Your task to perform on an android device: Search for pizza restaurants on Maps Image 0: 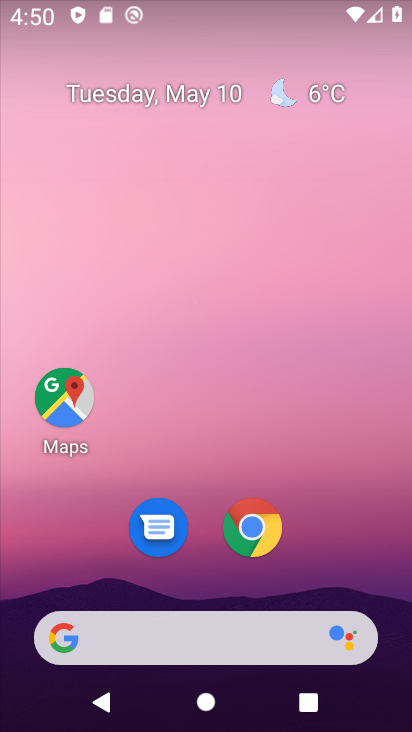
Step 0: drag from (350, 551) to (389, 33)
Your task to perform on an android device: Search for pizza restaurants on Maps Image 1: 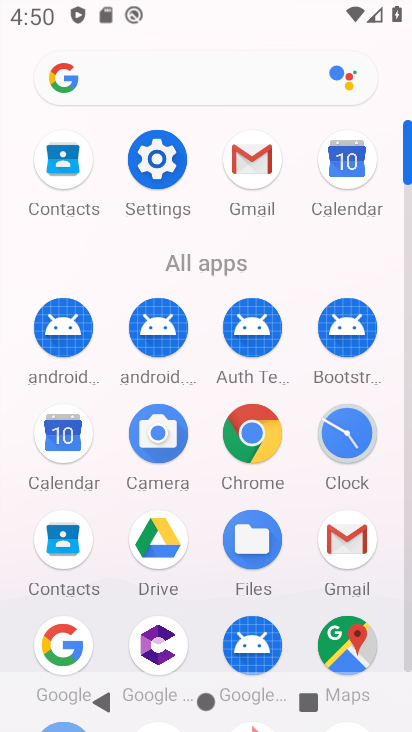
Step 1: click (345, 661)
Your task to perform on an android device: Search for pizza restaurants on Maps Image 2: 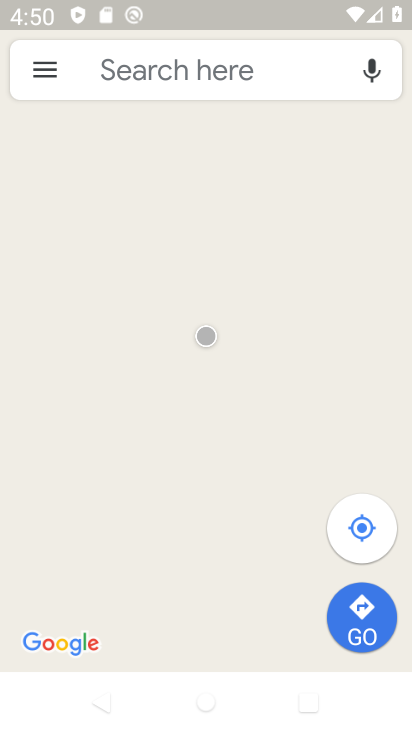
Step 2: click (167, 71)
Your task to perform on an android device: Search for pizza restaurants on Maps Image 3: 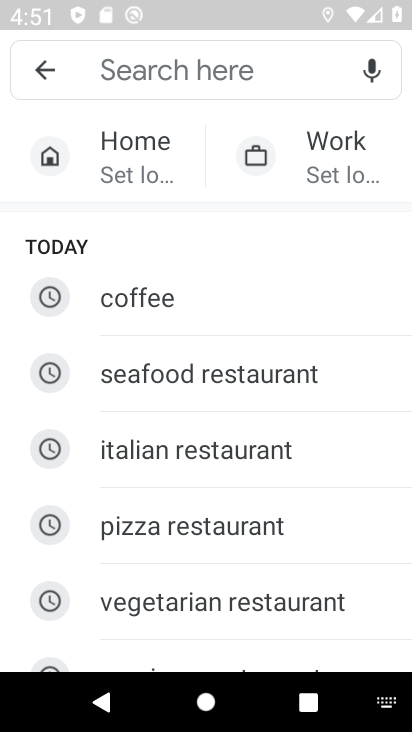
Step 3: type "pizza restaurants"
Your task to perform on an android device: Search for pizza restaurants on Maps Image 4: 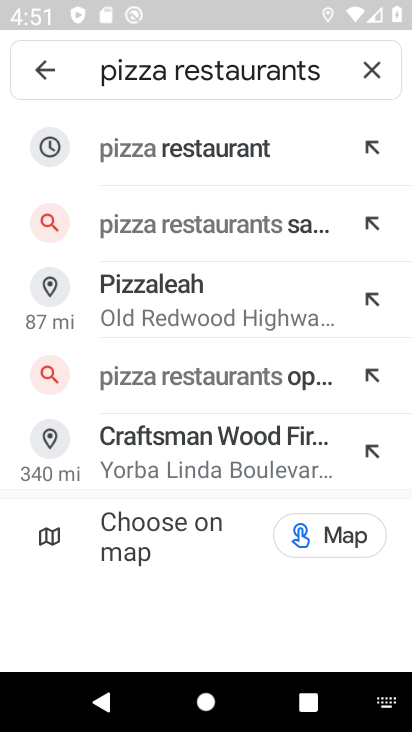
Step 4: click (150, 167)
Your task to perform on an android device: Search for pizza restaurants on Maps Image 5: 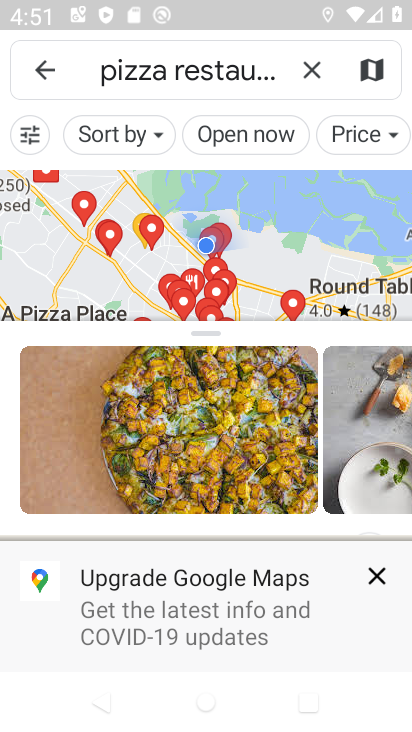
Step 5: task complete